Your task to perform on an android device: Open wifi settings Image 0: 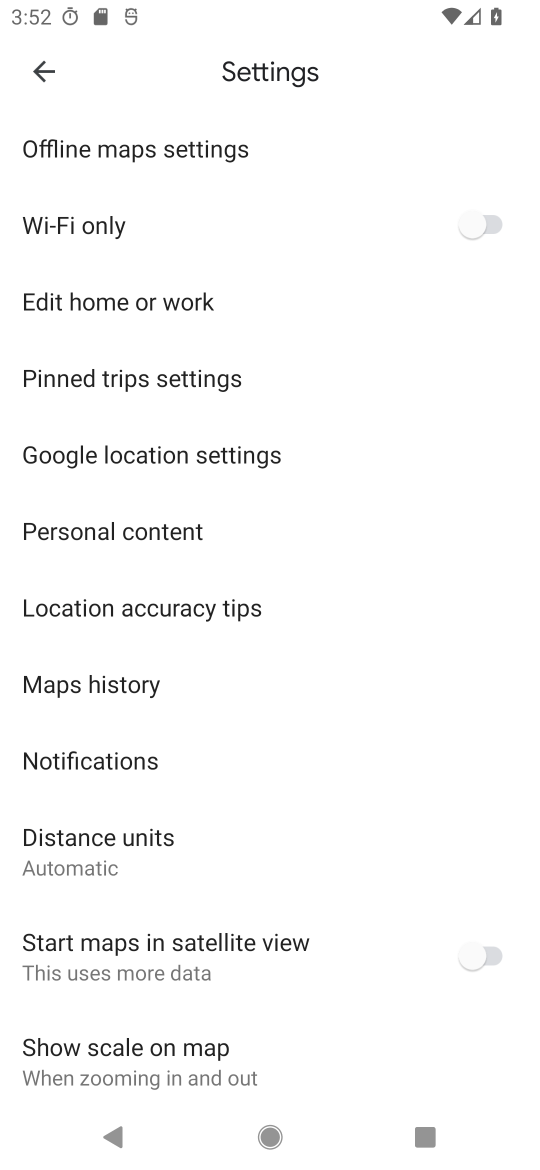
Step 0: press home button
Your task to perform on an android device: Open wifi settings Image 1: 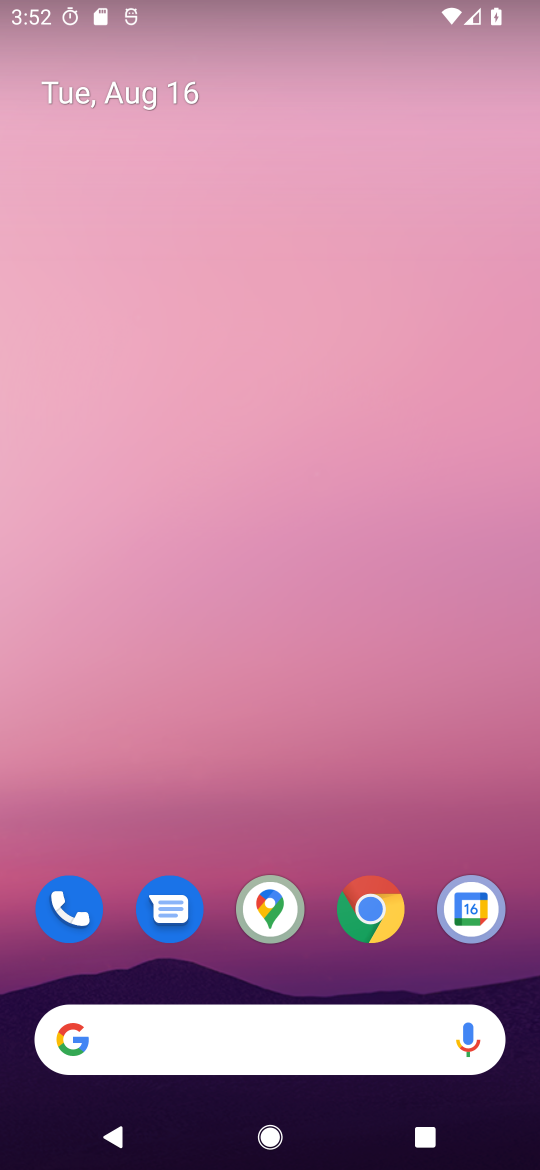
Step 1: drag from (258, 594) to (258, 373)
Your task to perform on an android device: Open wifi settings Image 2: 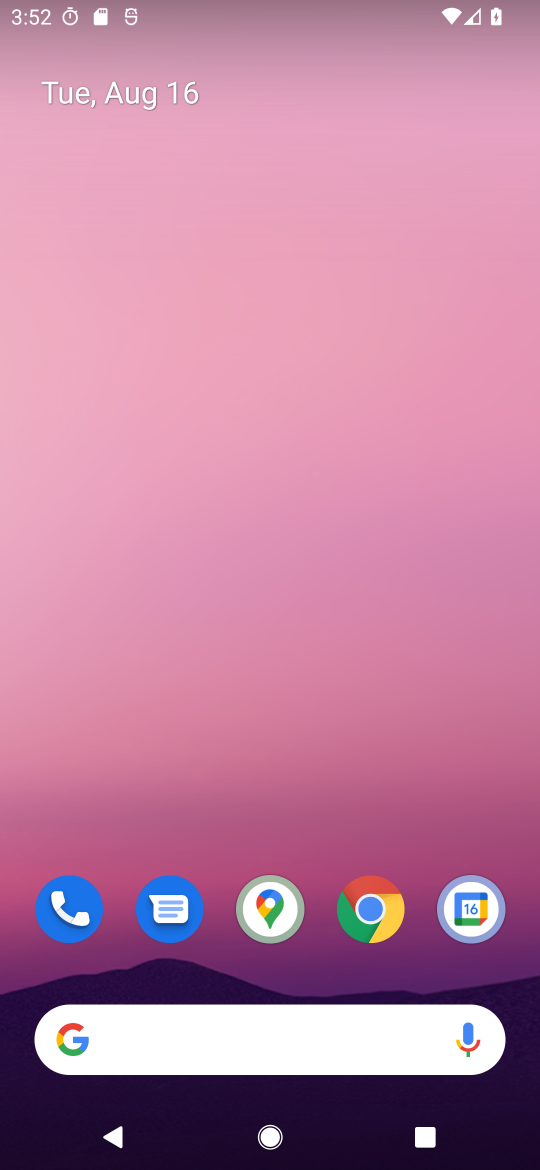
Step 2: drag from (274, 691) to (319, 10)
Your task to perform on an android device: Open wifi settings Image 3: 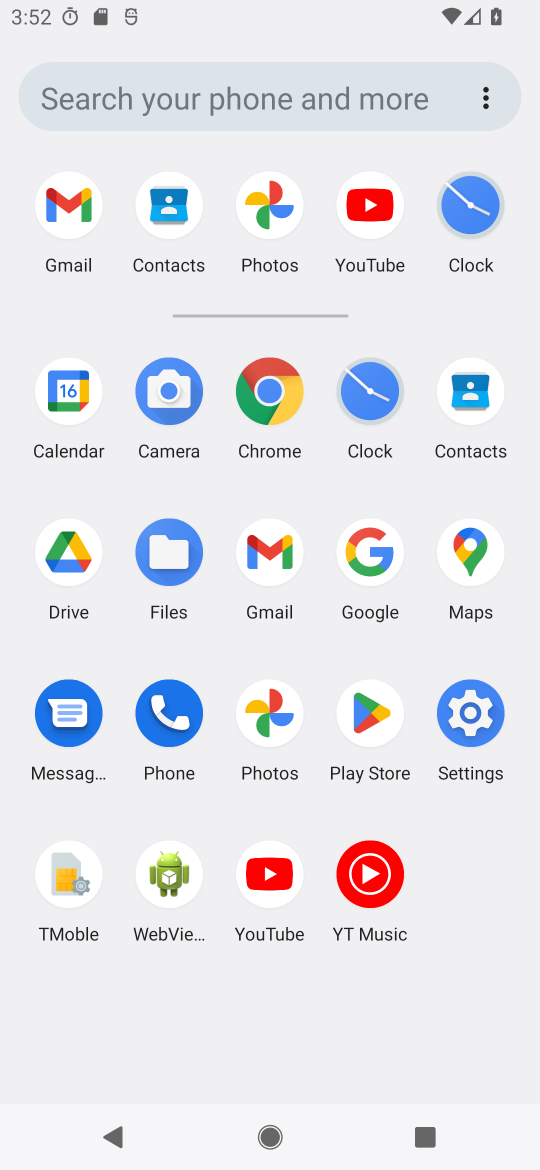
Step 3: click (466, 710)
Your task to perform on an android device: Open wifi settings Image 4: 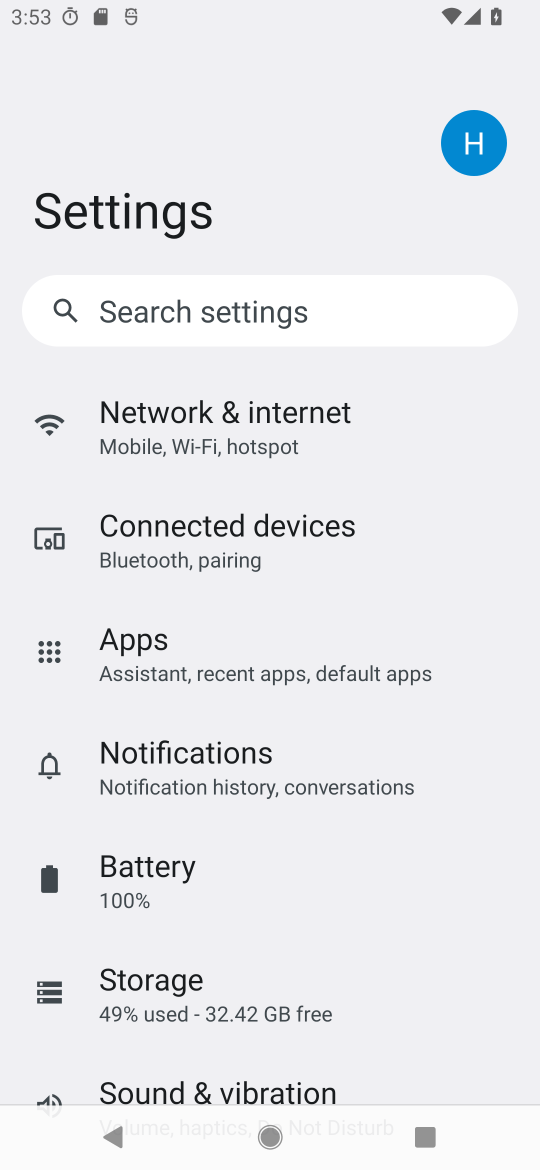
Step 4: click (199, 428)
Your task to perform on an android device: Open wifi settings Image 5: 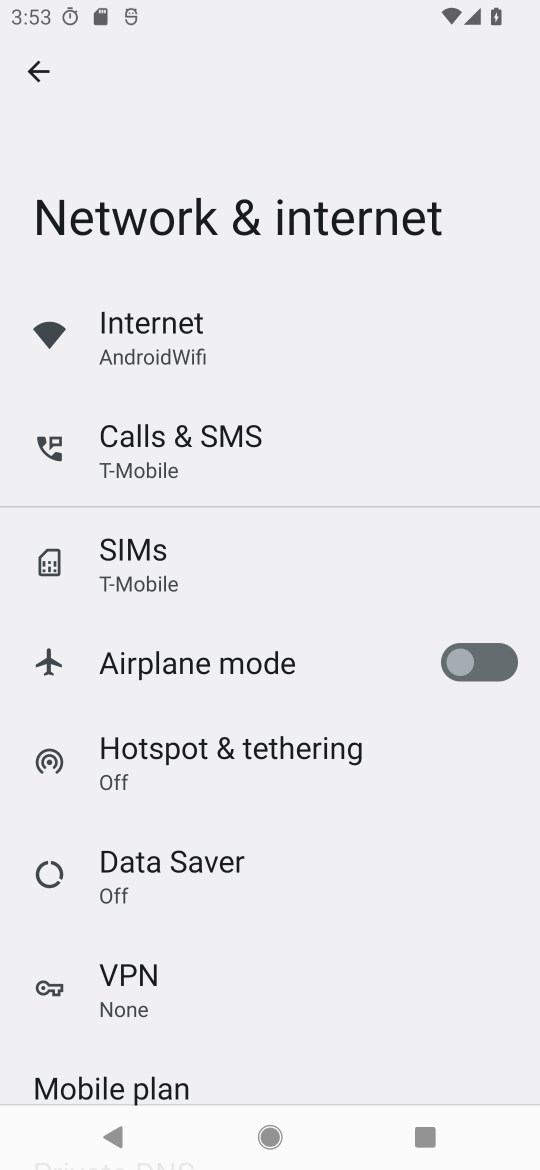
Step 5: click (155, 310)
Your task to perform on an android device: Open wifi settings Image 6: 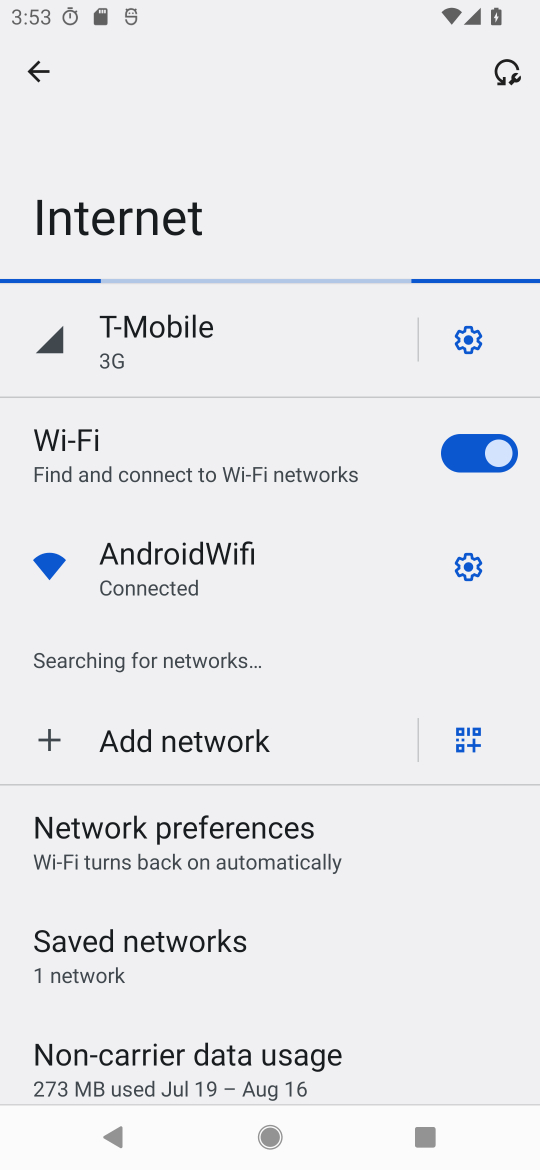
Step 6: click (170, 575)
Your task to perform on an android device: Open wifi settings Image 7: 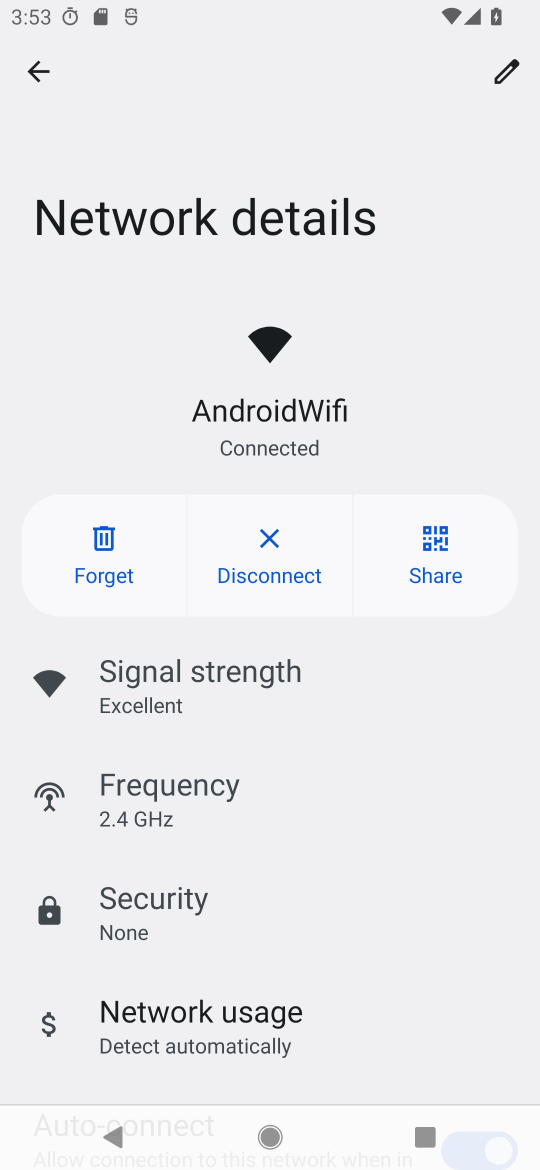
Step 7: task complete